Your task to perform on an android device: Open Chrome and go to settings Image 0: 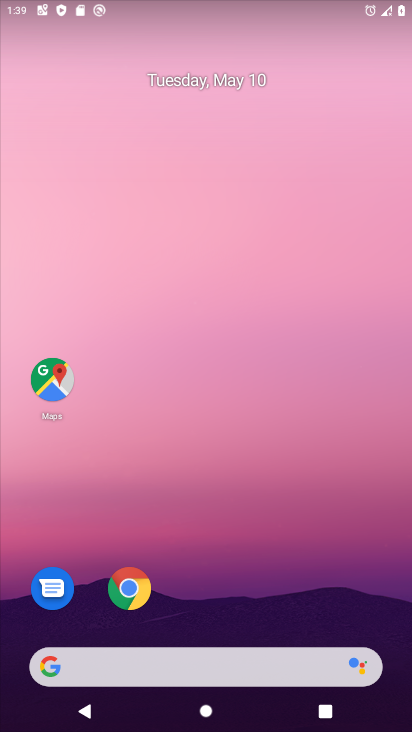
Step 0: drag from (249, 516) to (250, 254)
Your task to perform on an android device: Open Chrome and go to settings Image 1: 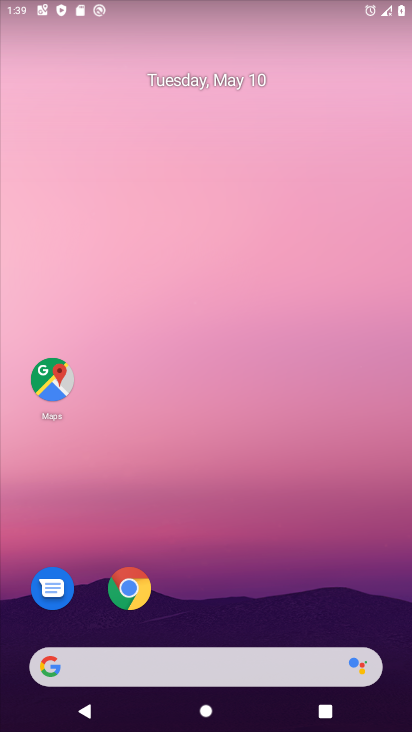
Step 1: click (123, 583)
Your task to perform on an android device: Open Chrome and go to settings Image 2: 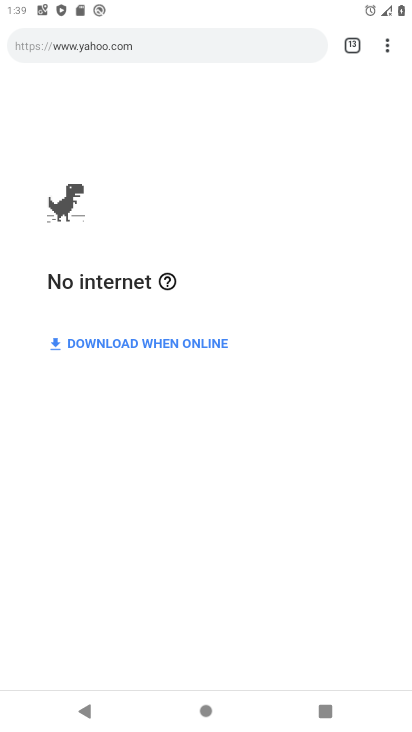
Step 2: click (377, 47)
Your task to perform on an android device: Open Chrome and go to settings Image 3: 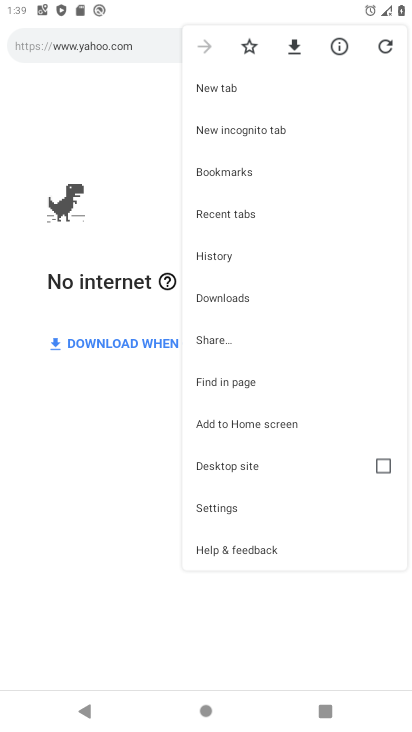
Step 3: click (230, 506)
Your task to perform on an android device: Open Chrome and go to settings Image 4: 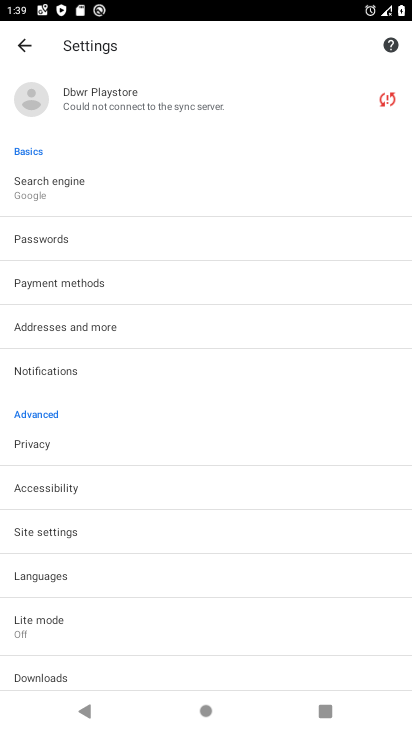
Step 4: task complete